Your task to perform on an android device: When is my next meeting? Image 0: 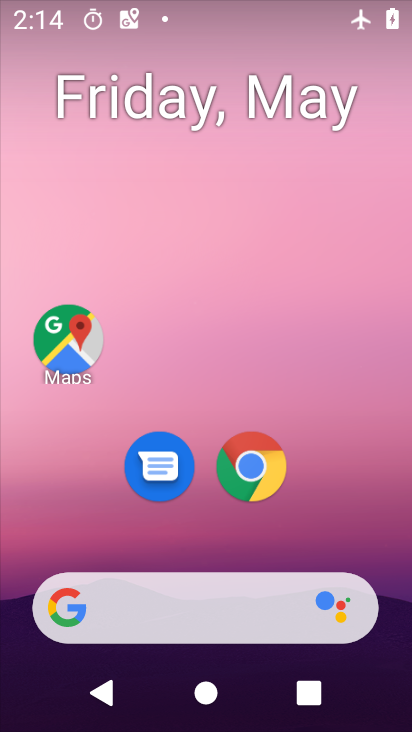
Step 0: drag from (337, 454) to (325, 32)
Your task to perform on an android device: When is my next meeting? Image 1: 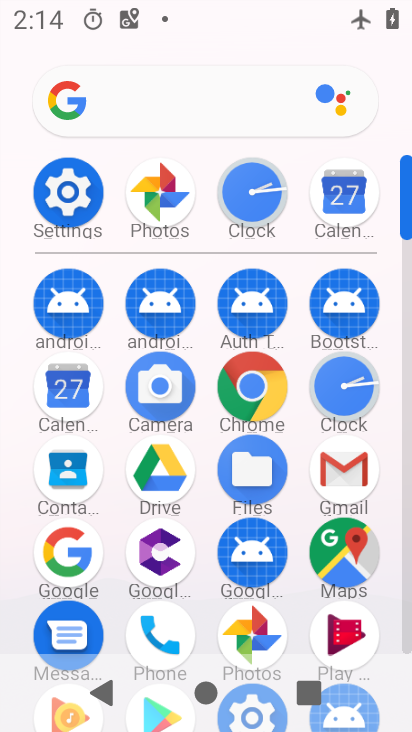
Step 1: click (72, 395)
Your task to perform on an android device: When is my next meeting? Image 2: 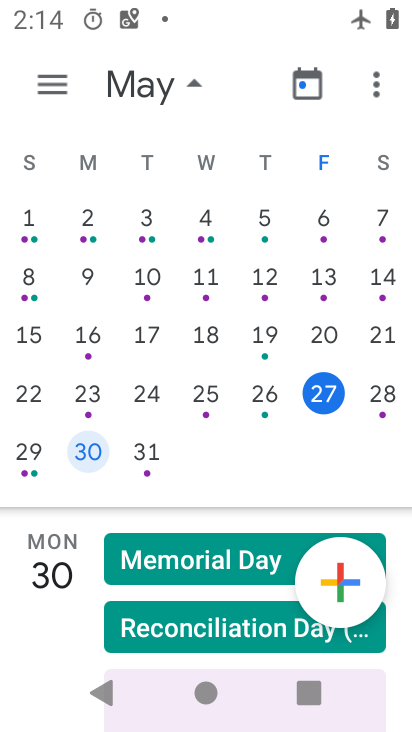
Step 2: click (397, 398)
Your task to perform on an android device: When is my next meeting? Image 3: 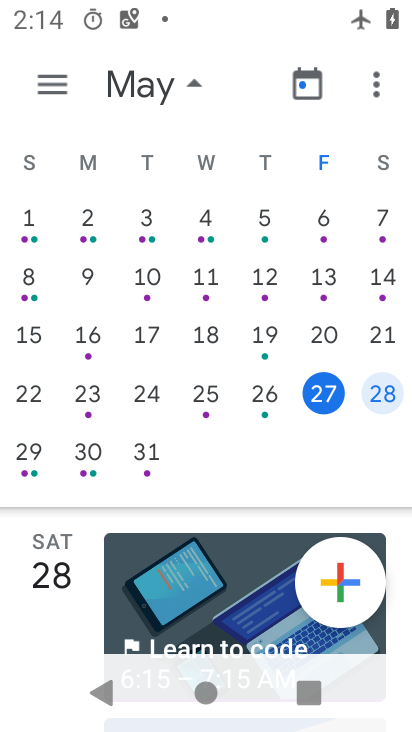
Step 3: task complete